Your task to perform on an android device: Go to accessibility settings Image 0: 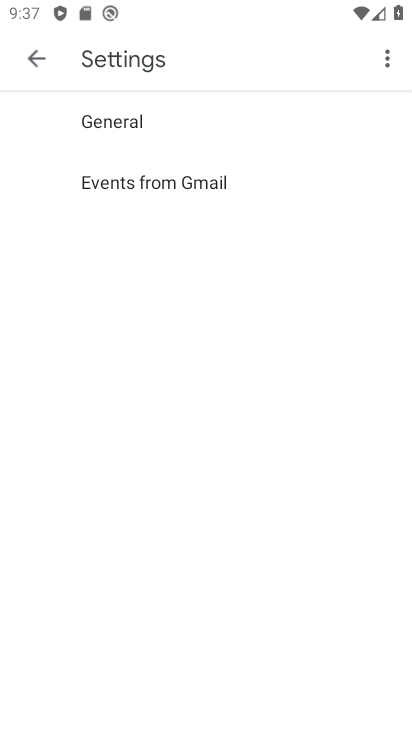
Step 0: press home button
Your task to perform on an android device: Go to accessibility settings Image 1: 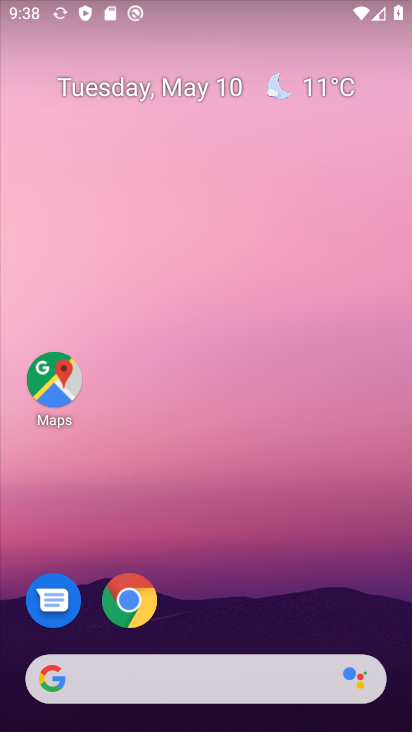
Step 1: click (298, 153)
Your task to perform on an android device: Go to accessibility settings Image 2: 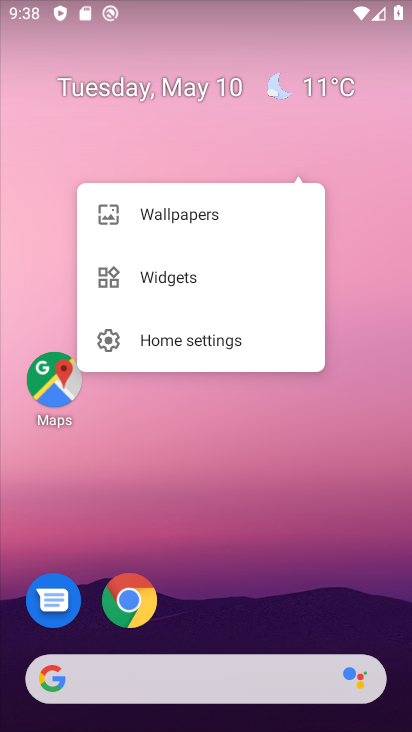
Step 2: drag from (301, 564) to (316, 64)
Your task to perform on an android device: Go to accessibility settings Image 3: 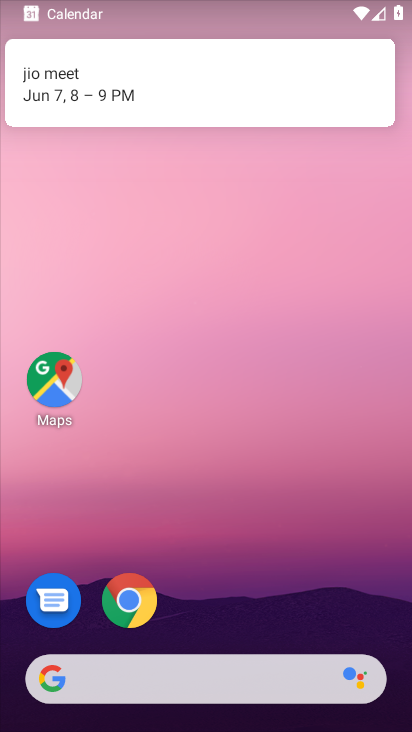
Step 3: drag from (315, 622) to (268, 71)
Your task to perform on an android device: Go to accessibility settings Image 4: 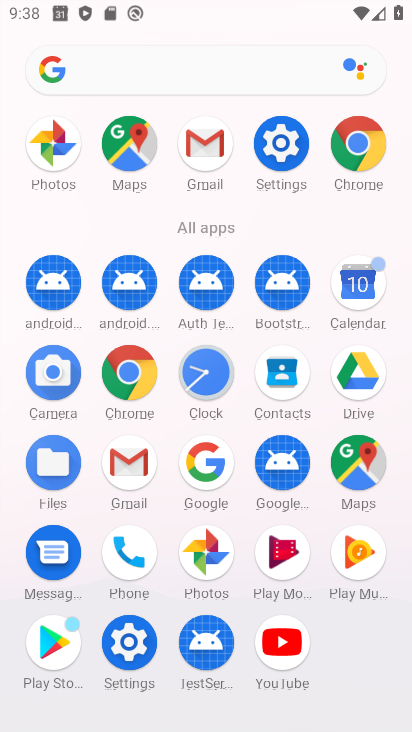
Step 4: click (284, 143)
Your task to perform on an android device: Go to accessibility settings Image 5: 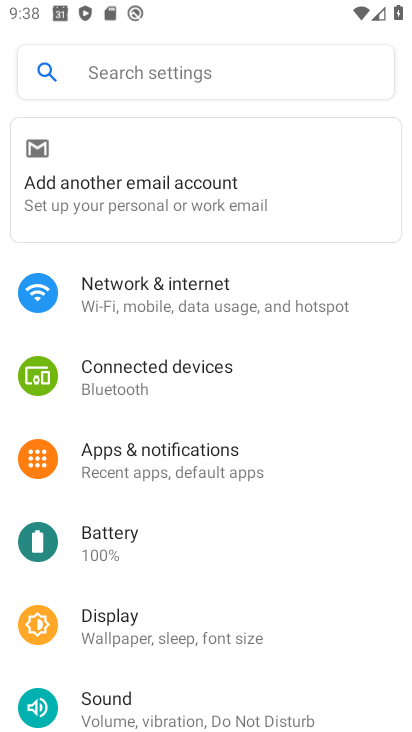
Step 5: drag from (294, 655) to (252, 223)
Your task to perform on an android device: Go to accessibility settings Image 6: 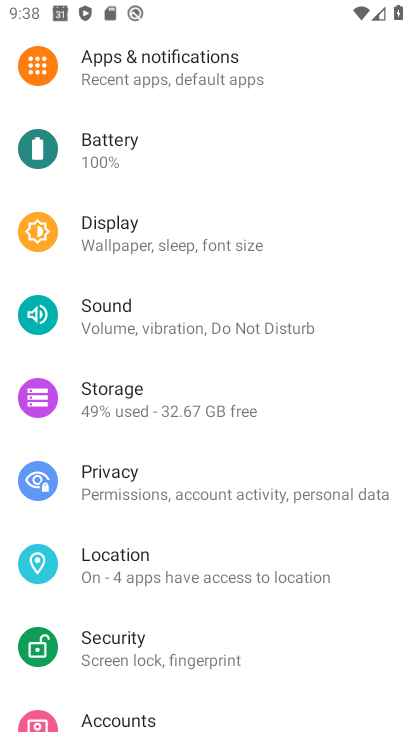
Step 6: drag from (235, 620) to (177, 195)
Your task to perform on an android device: Go to accessibility settings Image 7: 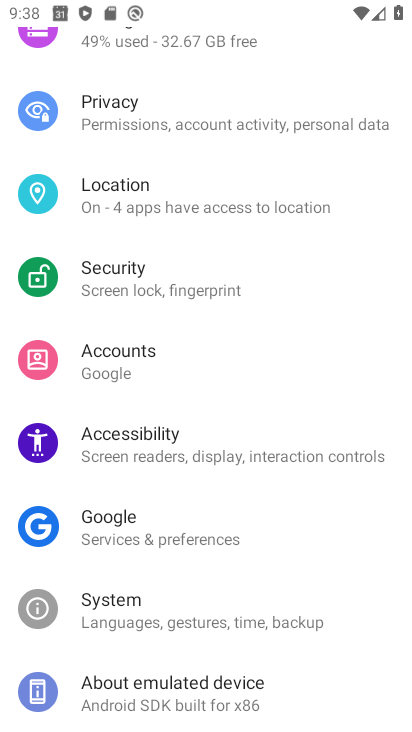
Step 7: click (153, 451)
Your task to perform on an android device: Go to accessibility settings Image 8: 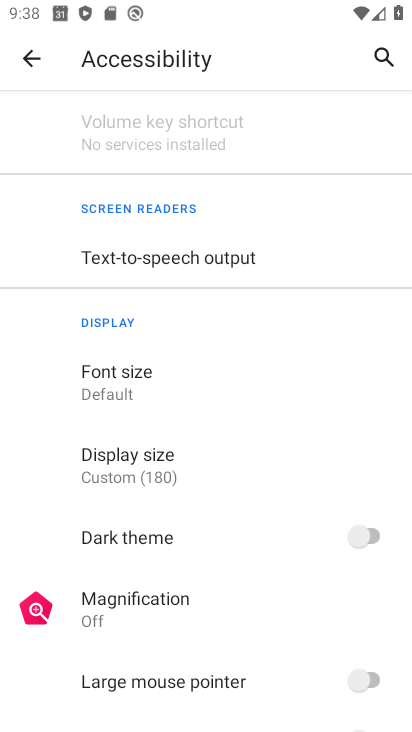
Step 8: task complete